Your task to perform on an android device: open chrome and create a bookmark for the current page Image 0: 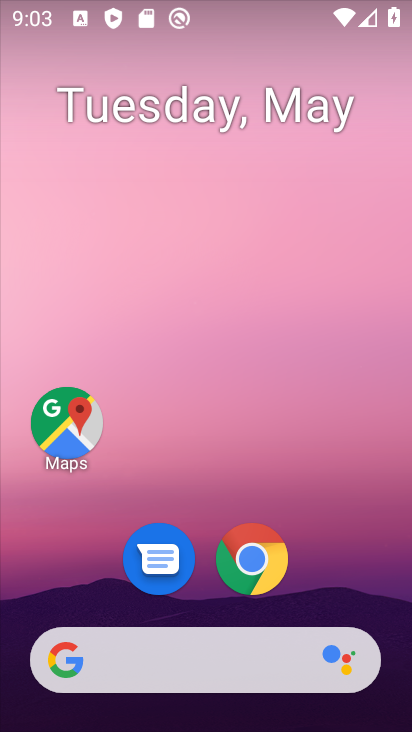
Step 0: drag from (232, 647) to (170, 201)
Your task to perform on an android device: open chrome and create a bookmark for the current page Image 1: 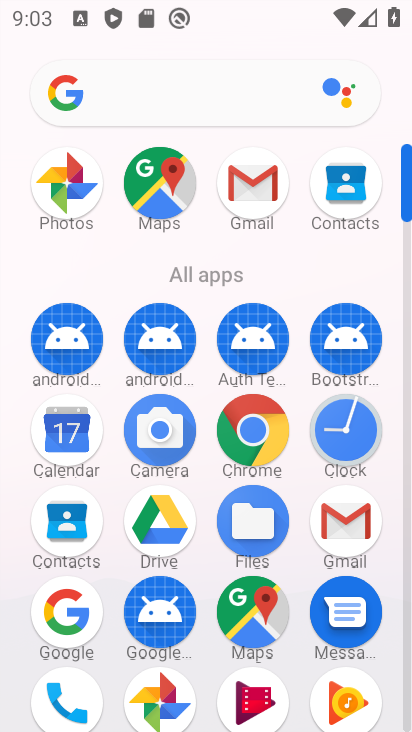
Step 1: click (249, 448)
Your task to perform on an android device: open chrome and create a bookmark for the current page Image 2: 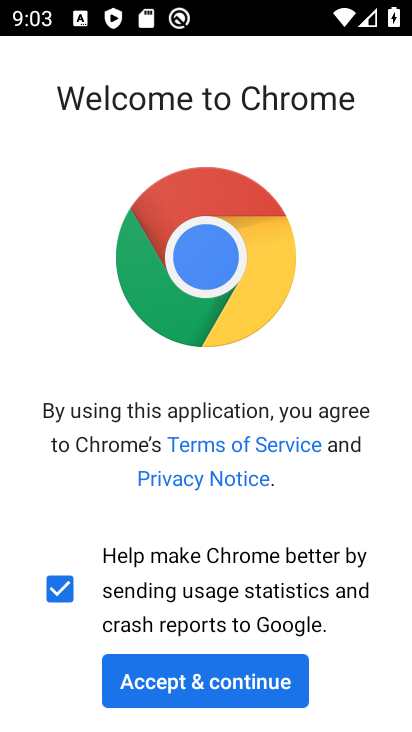
Step 2: click (227, 672)
Your task to perform on an android device: open chrome and create a bookmark for the current page Image 3: 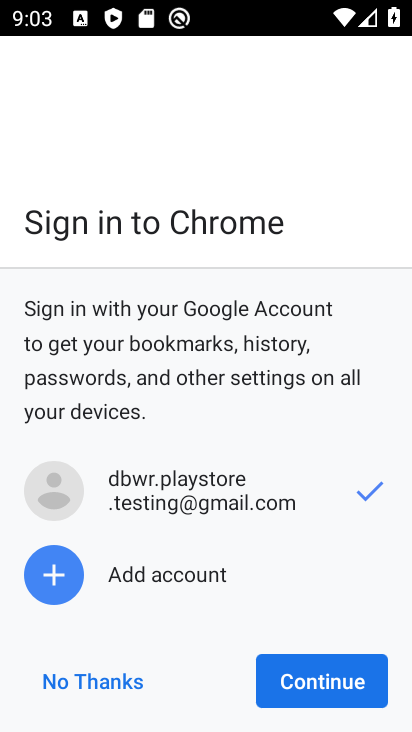
Step 3: click (273, 679)
Your task to perform on an android device: open chrome and create a bookmark for the current page Image 4: 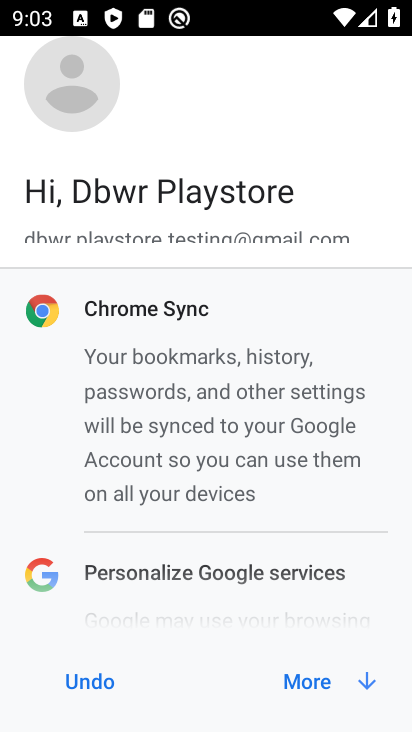
Step 4: click (286, 683)
Your task to perform on an android device: open chrome and create a bookmark for the current page Image 5: 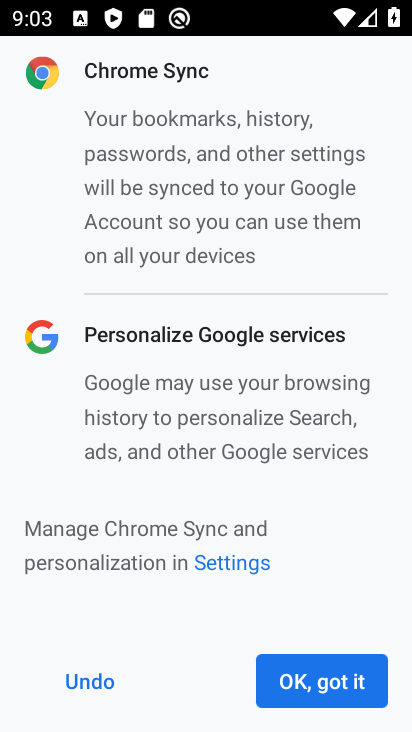
Step 5: click (288, 683)
Your task to perform on an android device: open chrome and create a bookmark for the current page Image 6: 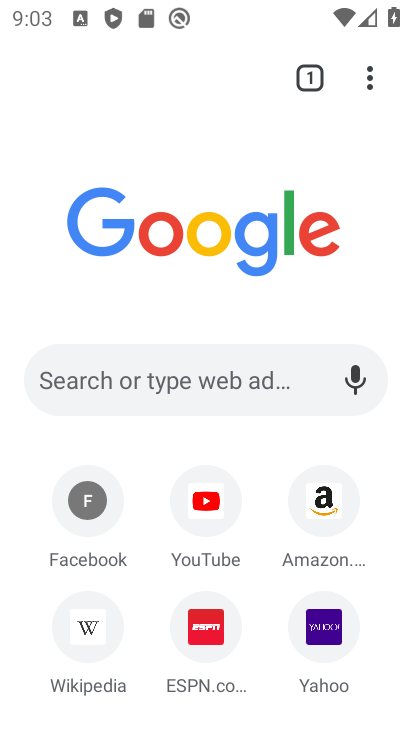
Step 6: click (374, 84)
Your task to perform on an android device: open chrome and create a bookmark for the current page Image 7: 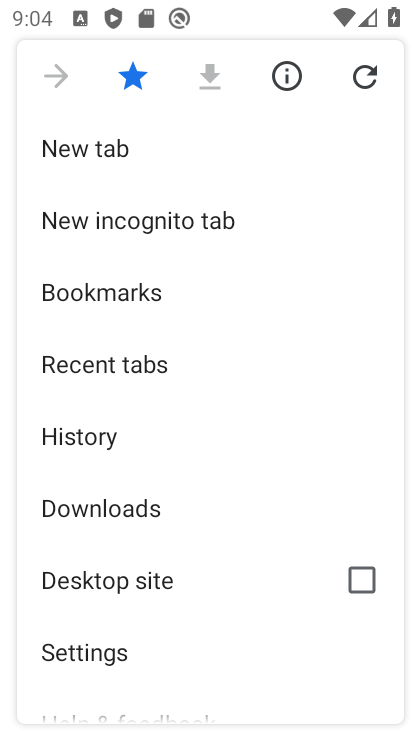
Step 7: click (68, 86)
Your task to perform on an android device: open chrome and create a bookmark for the current page Image 8: 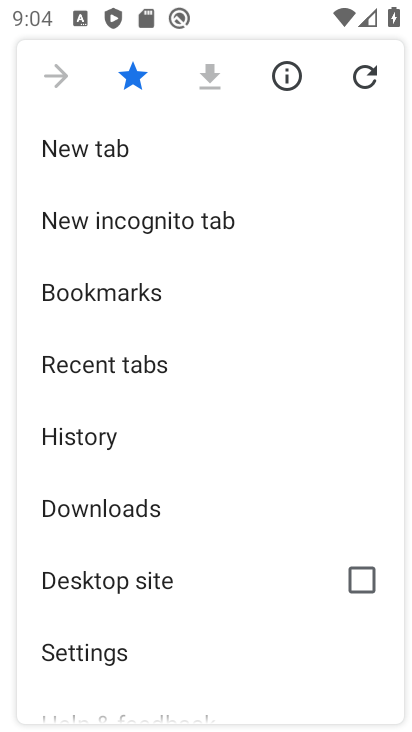
Step 8: task complete